Your task to perform on an android device: see sites visited before in the chrome app Image 0: 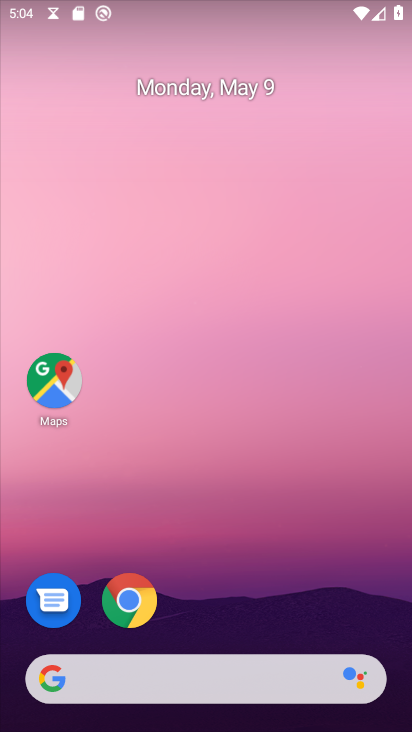
Step 0: drag from (288, 655) to (216, 15)
Your task to perform on an android device: see sites visited before in the chrome app Image 1: 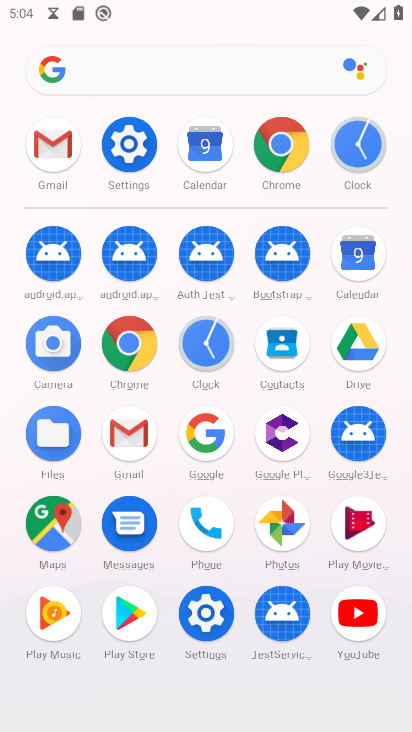
Step 1: click (128, 353)
Your task to perform on an android device: see sites visited before in the chrome app Image 2: 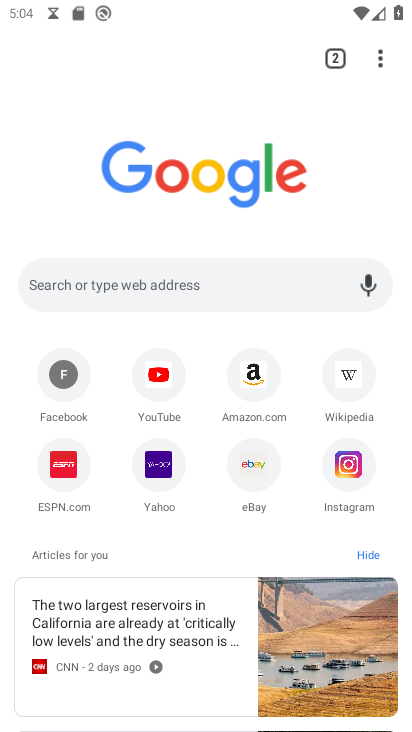
Step 2: click (388, 62)
Your task to perform on an android device: see sites visited before in the chrome app Image 3: 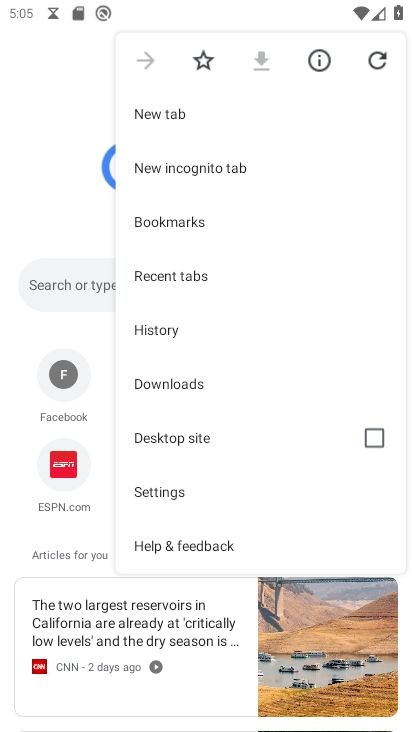
Step 3: click (243, 278)
Your task to perform on an android device: see sites visited before in the chrome app Image 4: 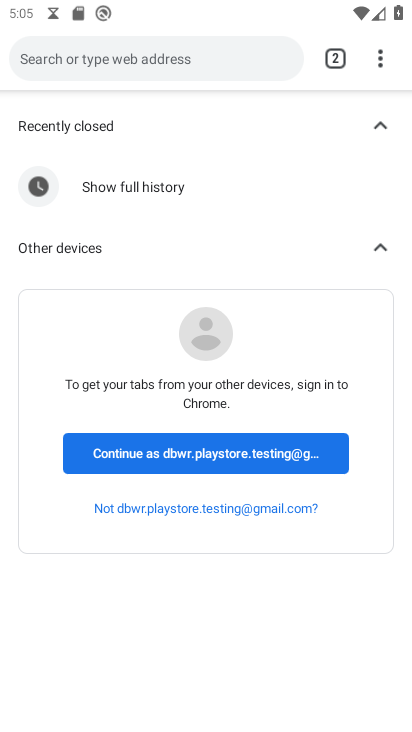
Step 4: task complete